Your task to perform on an android device: toggle pop-ups in chrome Image 0: 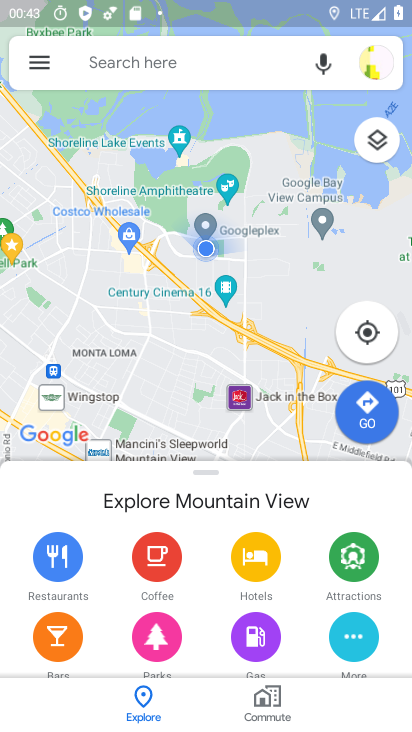
Step 0: press home button
Your task to perform on an android device: toggle pop-ups in chrome Image 1: 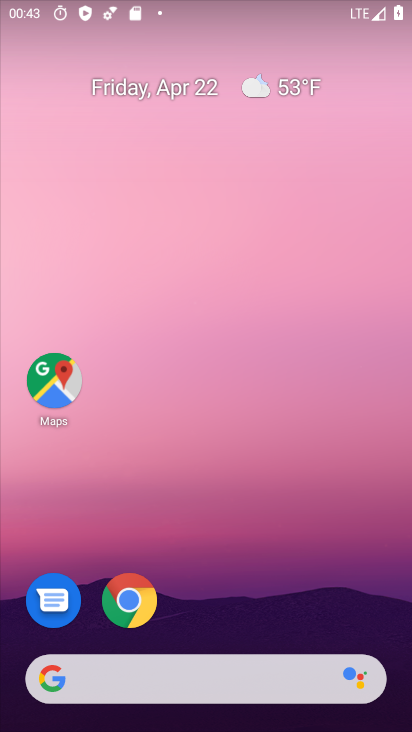
Step 1: drag from (218, 516) to (264, 143)
Your task to perform on an android device: toggle pop-ups in chrome Image 2: 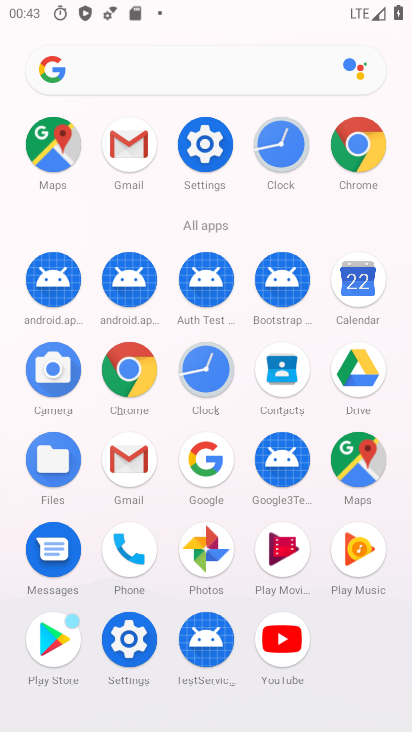
Step 2: click (360, 148)
Your task to perform on an android device: toggle pop-ups in chrome Image 3: 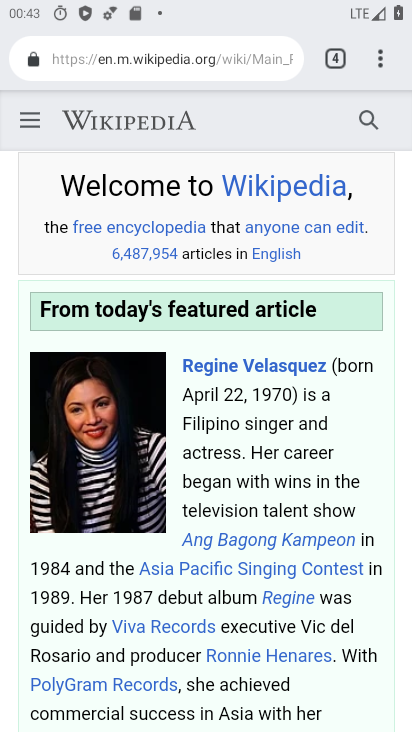
Step 3: click (381, 57)
Your task to perform on an android device: toggle pop-ups in chrome Image 4: 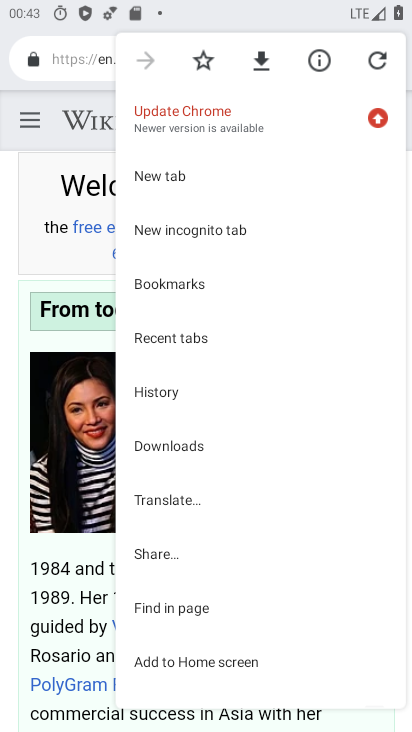
Step 4: drag from (184, 606) to (225, 286)
Your task to perform on an android device: toggle pop-ups in chrome Image 5: 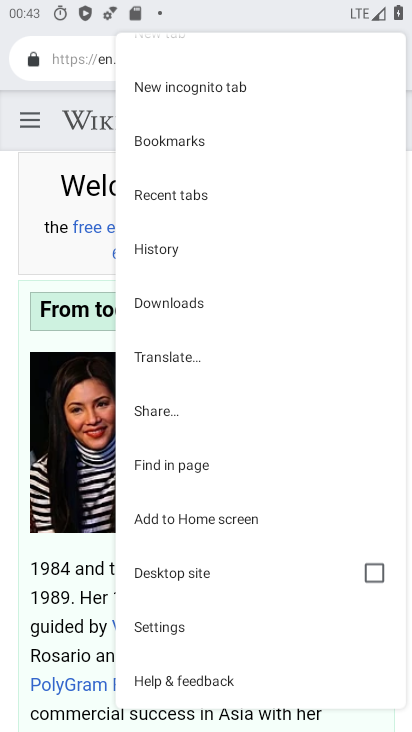
Step 5: click (177, 629)
Your task to perform on an android device: toggle pop-ups in chrome Image 6: 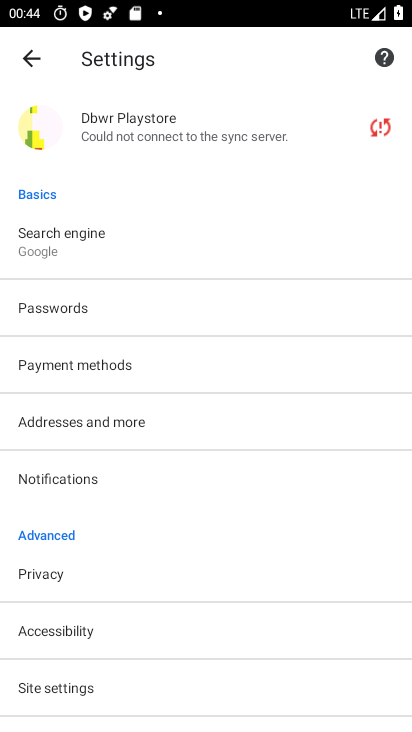
Step 6: drag from (137, 600) to (185, 296)
Your task to perform on an android device: toggle pop-ups in chrome Image 7: 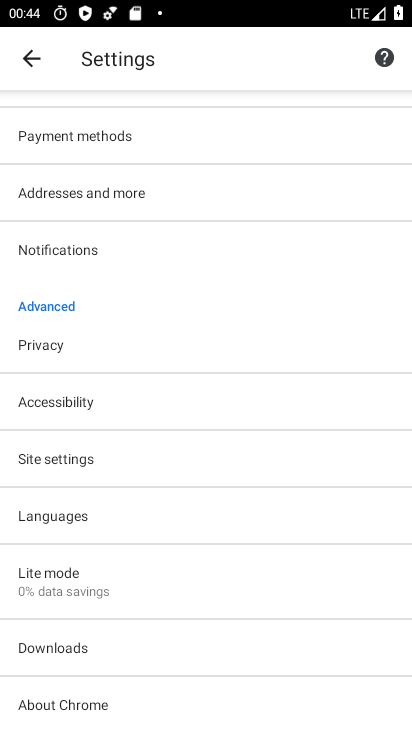
Step 7: click (126, 462)
Your task to perform on an android device: toggle pop-ups in chrome Image 8: 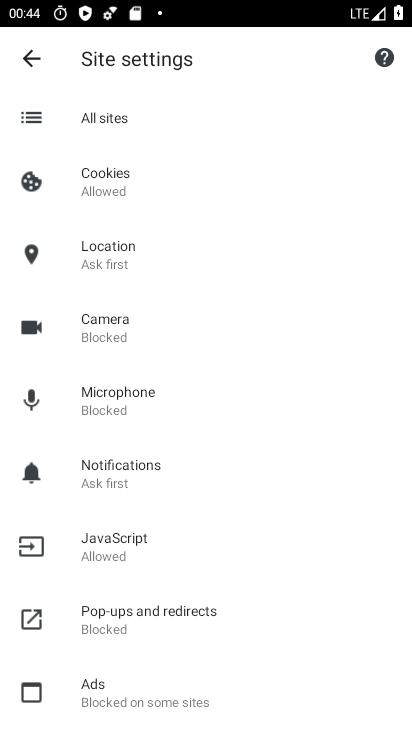
Step 8: click (131, 614)
Your task to perform on an android device: toggle pop-ups in chrome Image 9: 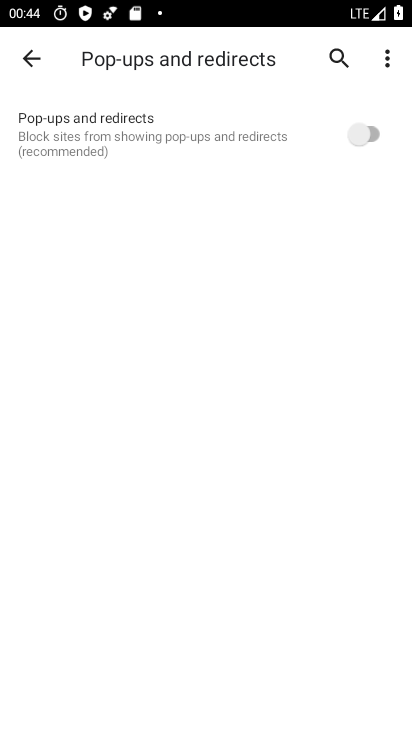
Step 9: click (361, 129)
Your task to perform on an android device: toggle pop-ups in chrome Image 10: 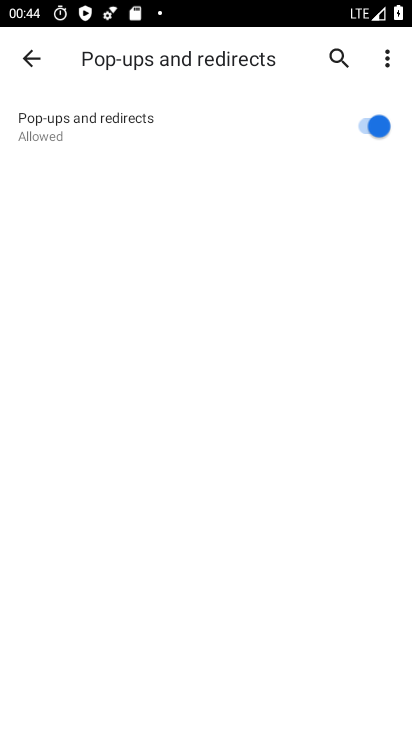
Step 10: task complete